Your task to perform on an android device: Is it going to rain this weekend? Image 0: 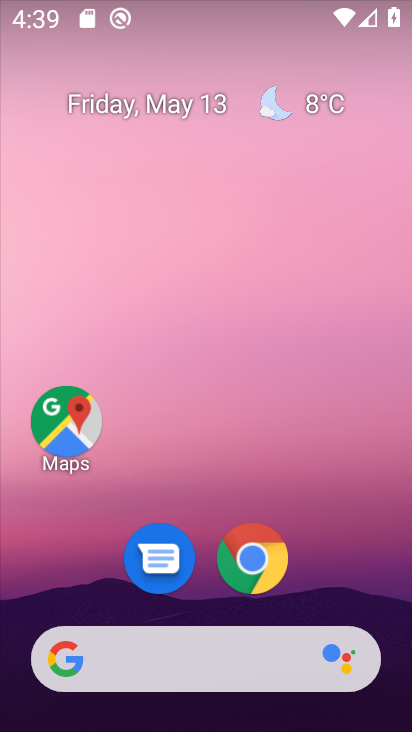
Step 0: click (328, 106)
Your task to perform on an android device: Is it going to rain this weekend? Image 1: 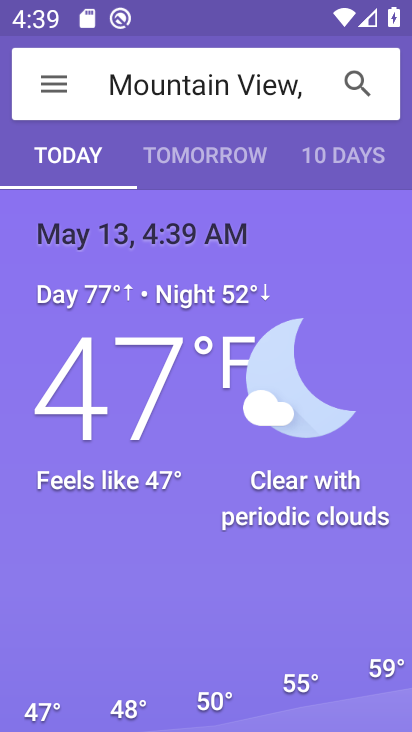
Step 1: click (351, 161)
Your task to perform on an android device: Is it going to rain this weekend? Image 2: 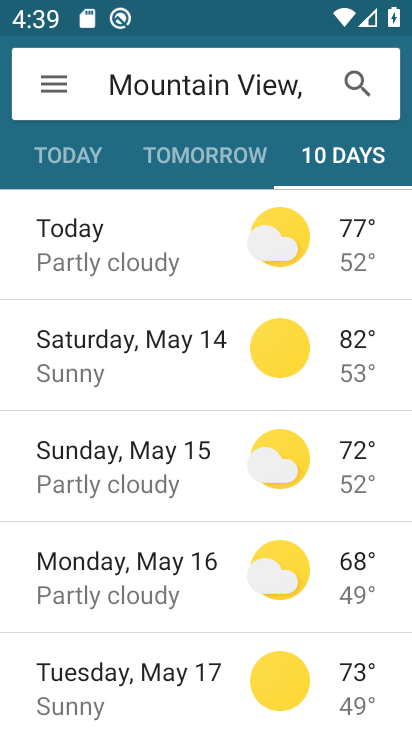
Step 2: task complete